Your task to perform on an android device: read, delete, or share a saved page in the chrome app Image 0: 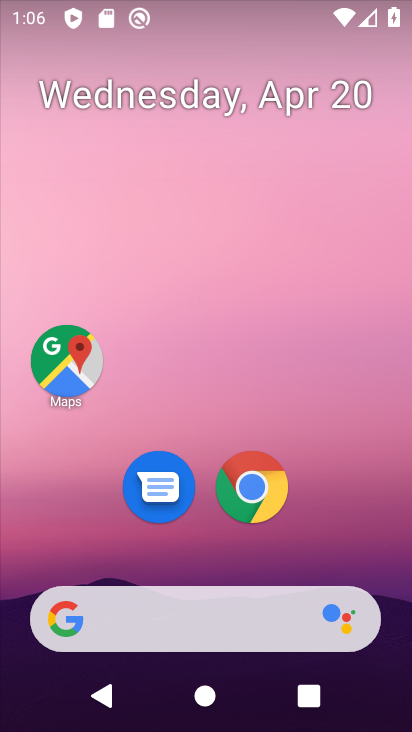
Step 0: drag from (370, 572) to (274, 99)
Your task to perform on an android device: read, delete, or share a saved page in the chrome app Image 1: 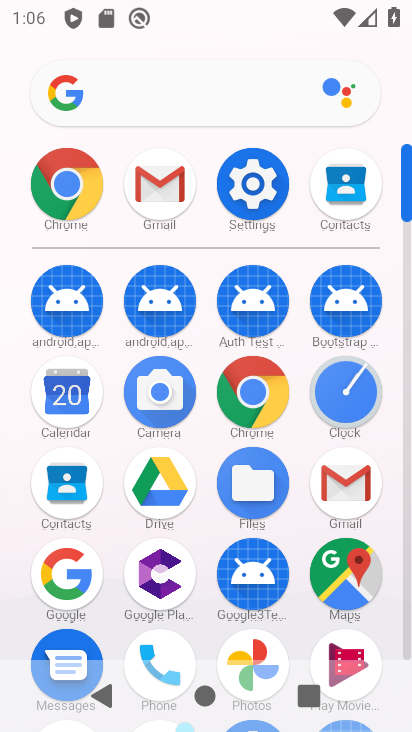
Step 1: click (258, 406)
Your task to perform on an android device: read, delete, or share a saved page in the chrome app Image 2: 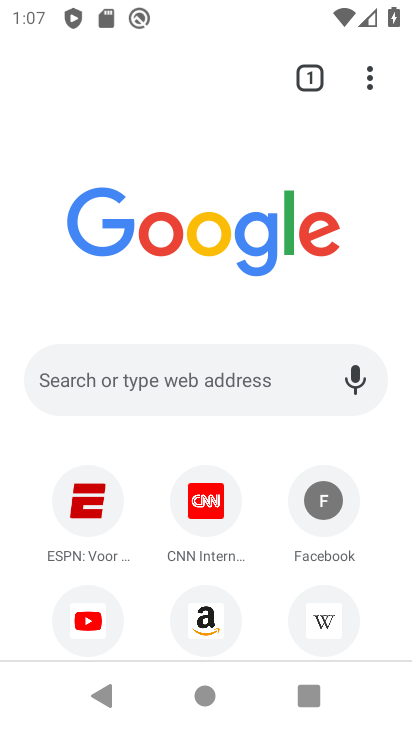
Step 2: click (365, 77)
Your task to perform on an android device: read, delete, or share a saved page in the chrome app Image 3: 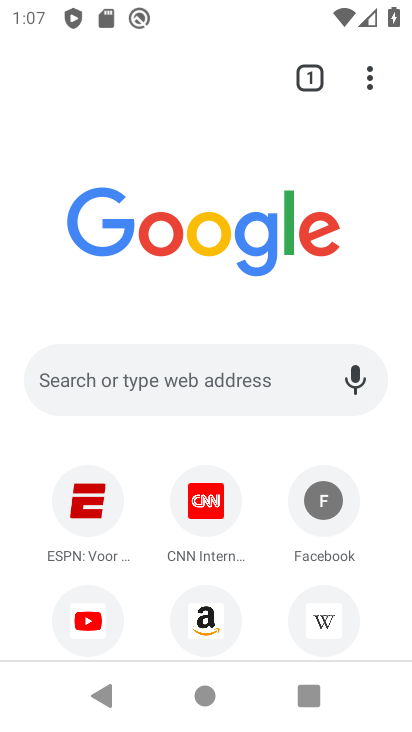
Step 3: click (371, 68)
Your task to perform on an android device: read, delete, or share a saved page in the chrome app Image 4: 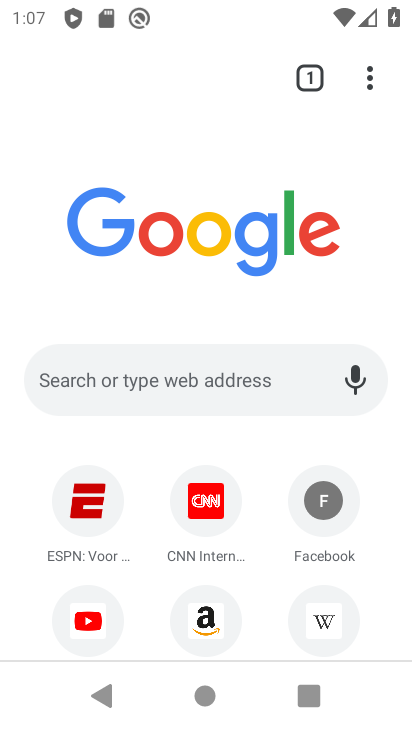
Step 4: task complete